Your task to perform on an android device: Go to calendar. Show me events next week Image 0: 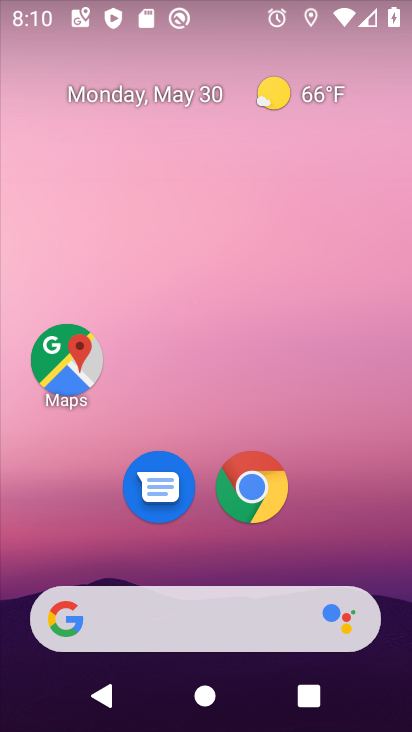
Step 0: drag from (293, 524) to (249, 153)
Your task to perform on an android device: Go to calendar. Show me events next week Image 1: 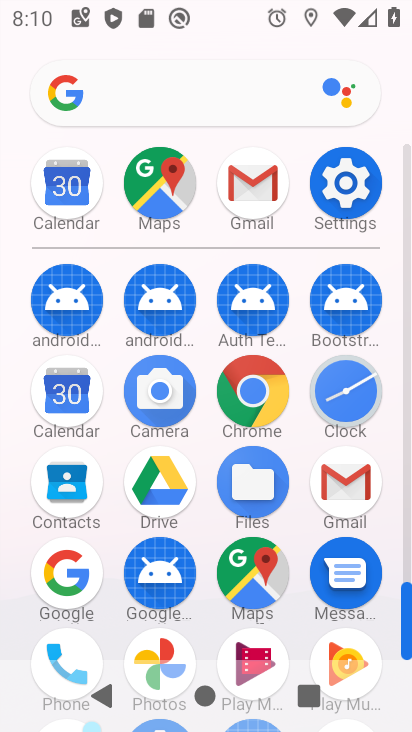
Step 1: click (63, 408)
Your task to perform on an android device: Go to calendar. Show me events next week Image 2: 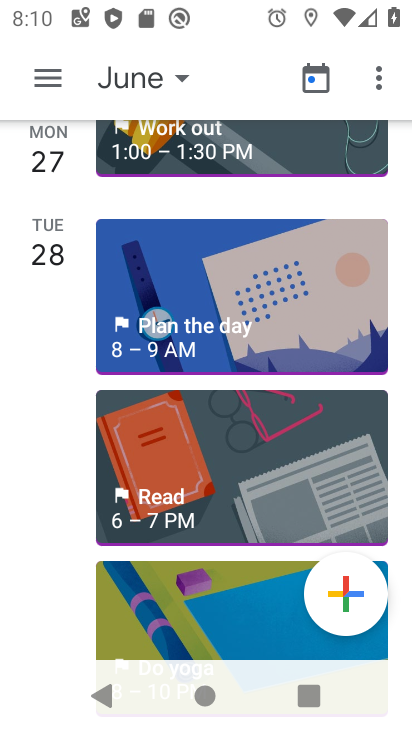
Step 2: click (44, 75)
Your task to perform on an android device: Go to calendar. Show me events next week Image 3: 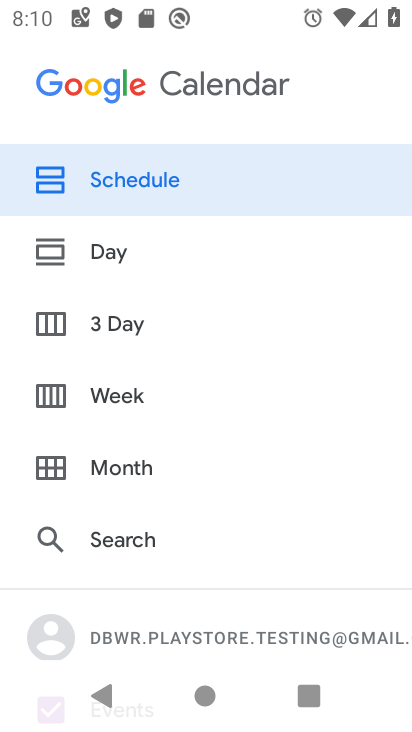
Step 3: drag from (322, 445) to (317, 215)
Your task to perform on an android device: Go to calendar. Show me events next week Image 4: 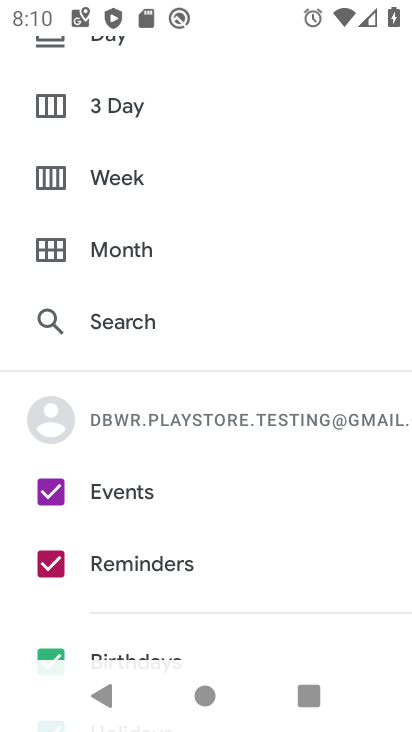
Step 4: click (109, 180)
Your task to perform on an android device: Go to calendar. Show me events next week Image 5: 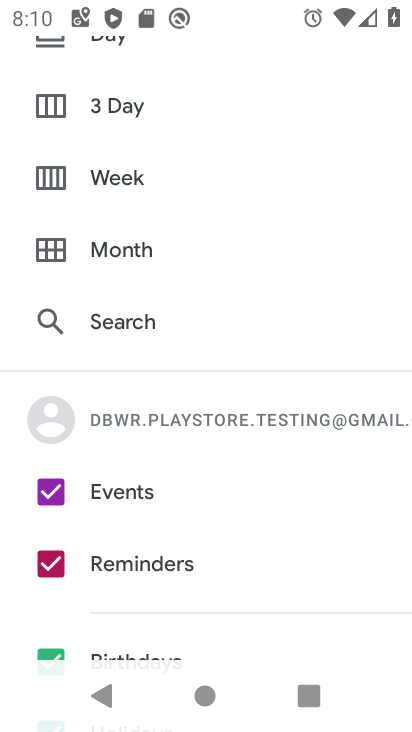
Step 5: click (110, 501)
Your task to perform on an android device: Go to calendar. Show me events next week Image 6: 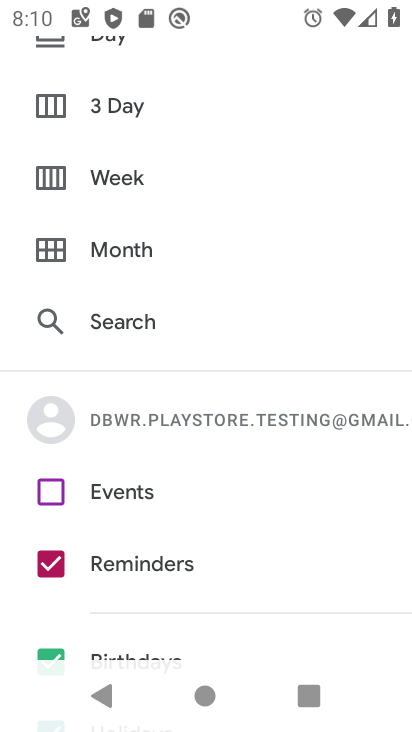
Step 6: click (110, 501)
Your task to perform on an android device: Go to calendar. Show me events next week Image 7: 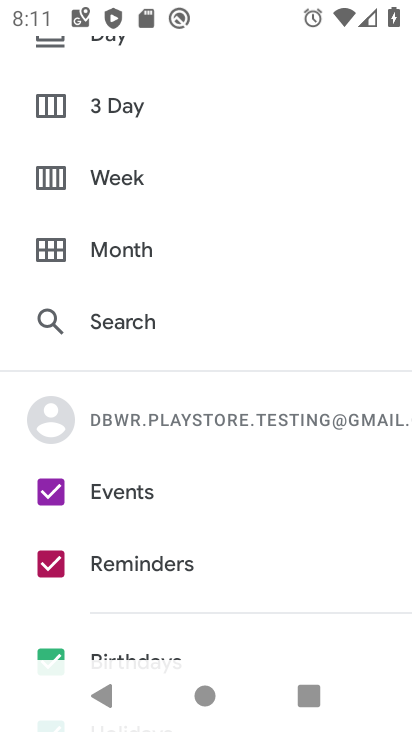
Step 7: task complete